Your task to perform on an android device: turn notification dots on Image 0: 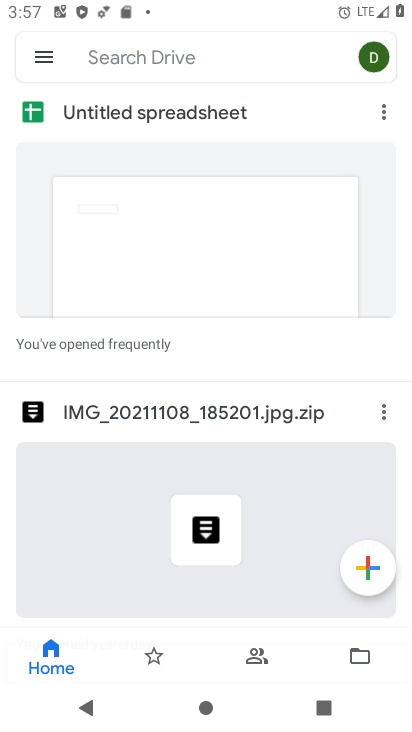
Step 0: press home button
Your task to perform on an android device: turn notification dots on Image 1: 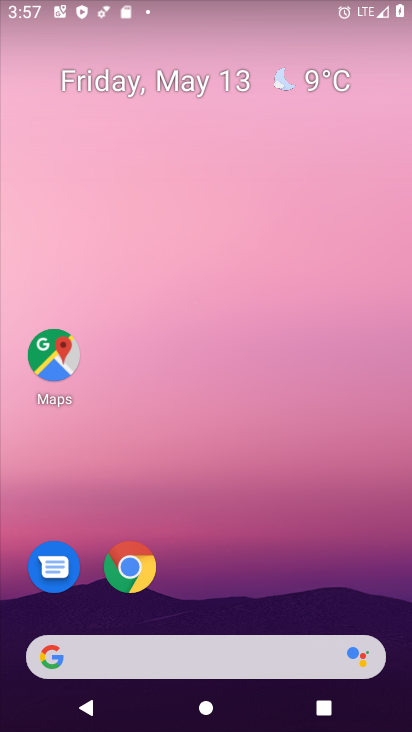
Step 1: drag from (232, 550) to (267, 12)
Your task to perform on an android device: turn notification dots on Image 2: 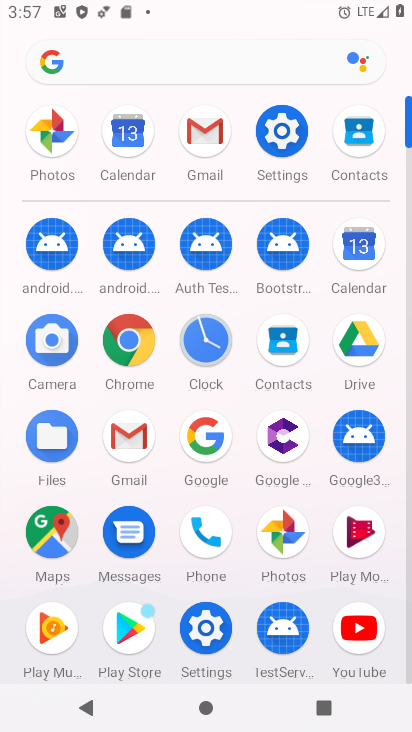
Step 2: click (284, 132)
Your task to perform on an android device: turn notification dots on Image 3: 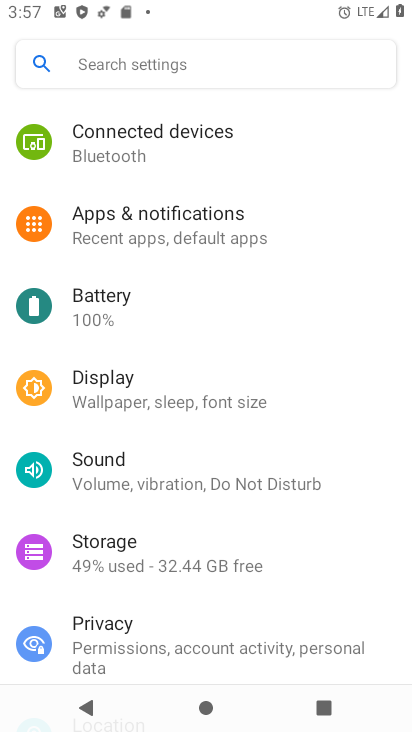
Step 3: click (178, 214)
Your task to perform on an android device: turn notification dots on Image 4: 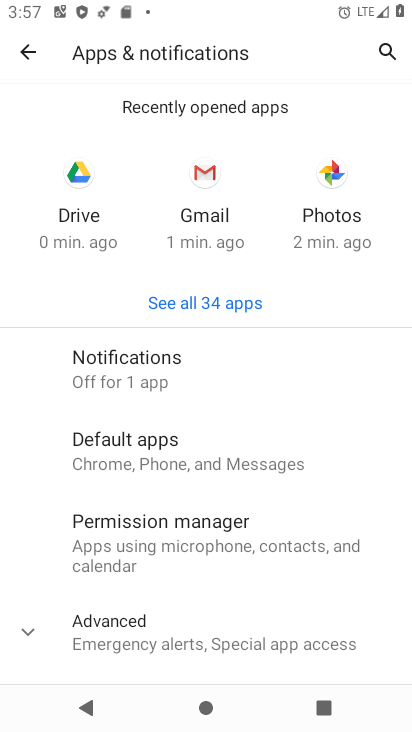
Step 4: click (143, 376)
Your task to perform on an android device: turn notification dots on Image 5: 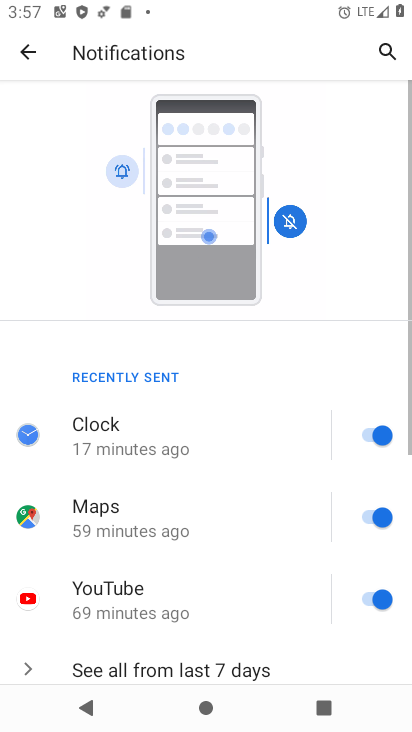
Step 5: drag from (219, 549) to (216, 81)
Your task to perform on an android device: turn notification dots on Image 6: 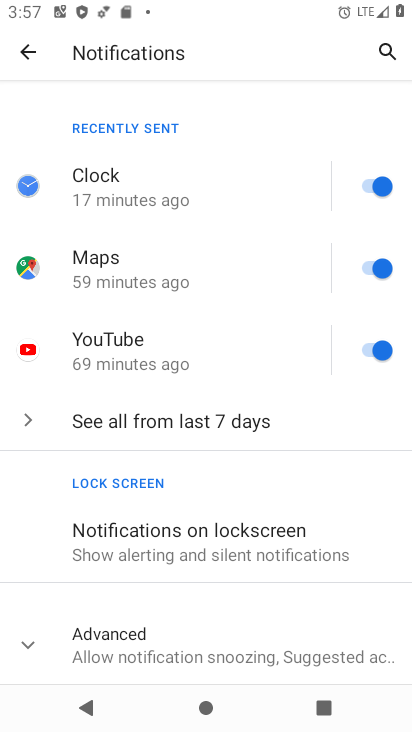
Step 6: click (29, 650)
Your task to perform on an android device: turn notification dots on Image 7: 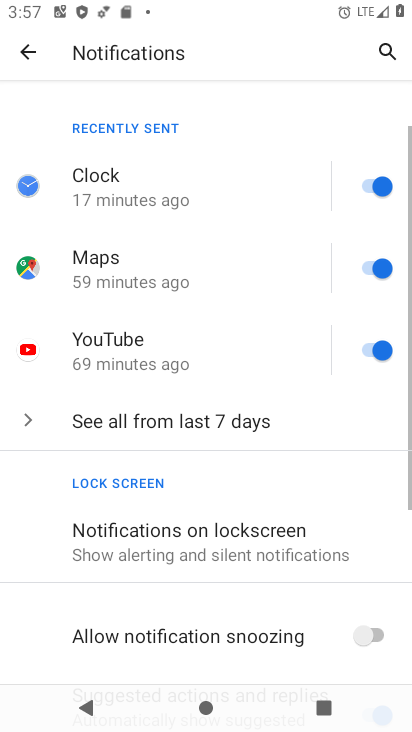
Step 7: task complete